Your task to perform on an android device: Go to Yahoo.com Image 0: 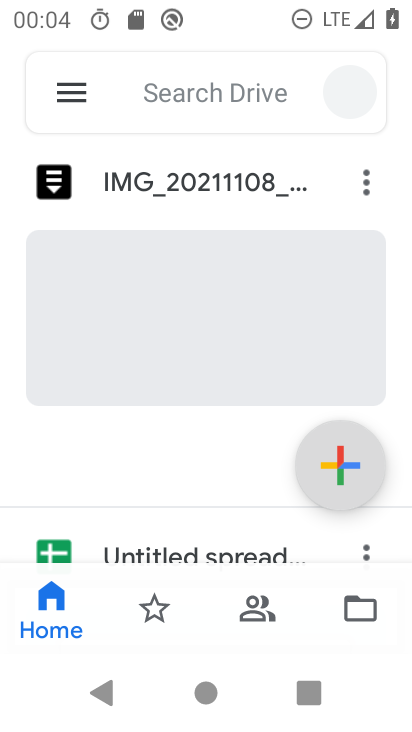
Step 0: press home button
Your task to perform on an android device: Go to Yahoo.com Image 1: 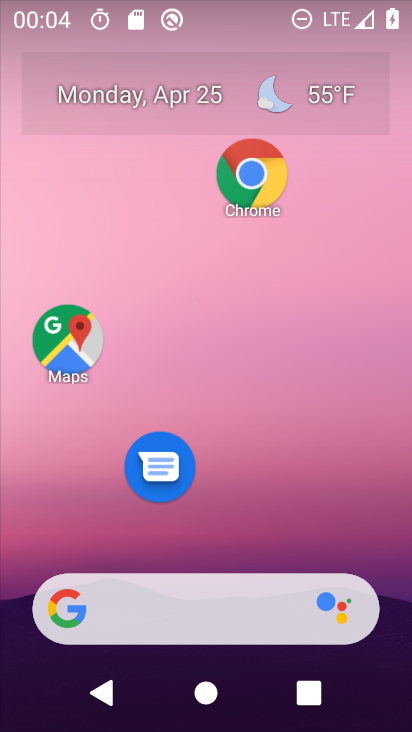
Step 1: drag from (286, 502) to (302, 86)
Your task to perform on an android device: Go to Yahoo.com Image 2: 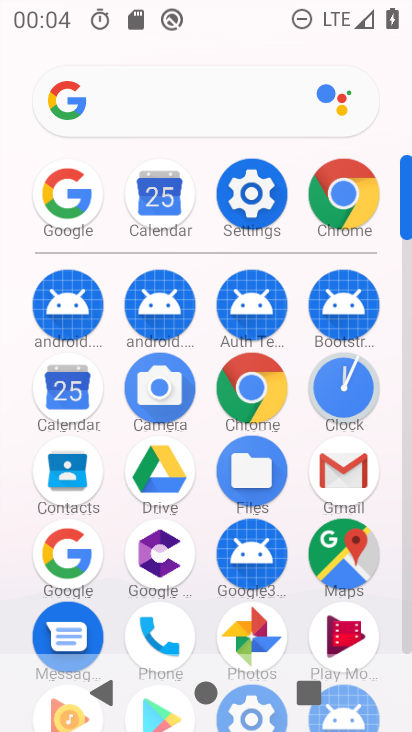
Step 2: click (343, 197)
Your task to perform on an android device: Go to Yahoo.com Image 3: 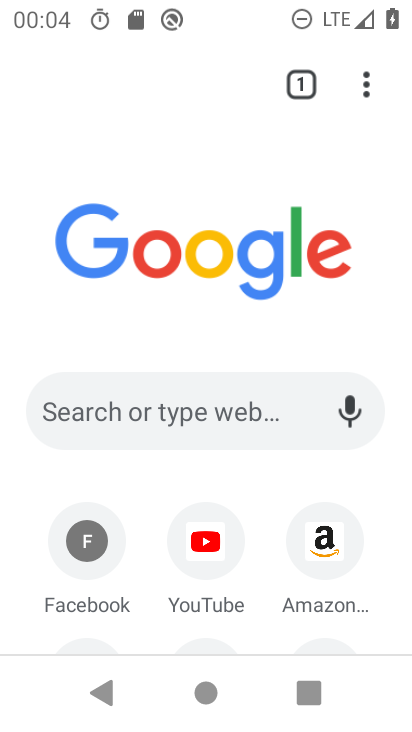
Step 3: drag from (253, 600) to (270, 316)
Your task to perform on an android device: Go to Yahoo.com Image 4: 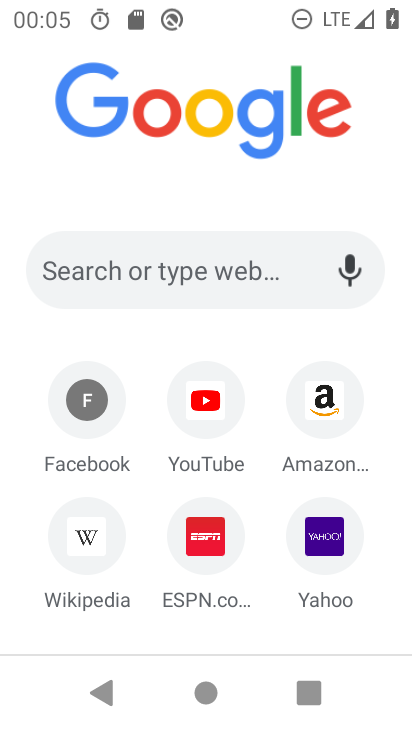
Step 4: click (324, 535)
Your task to perform on an android device: Go to Yahoo.com Image 5: 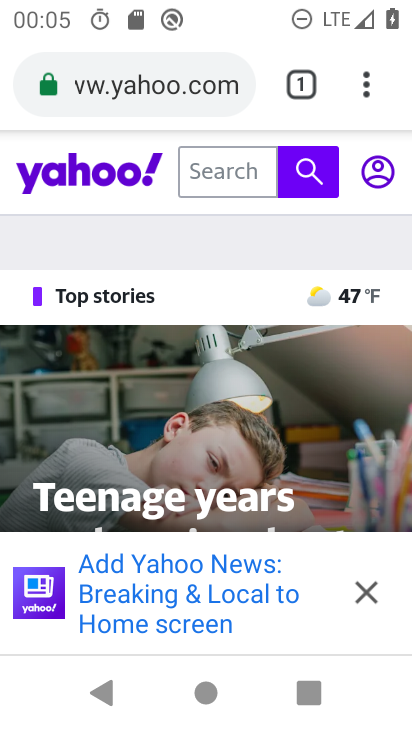
Step 5: task complete